Your task to perform on an android device: Open Google Chrome Image 0: 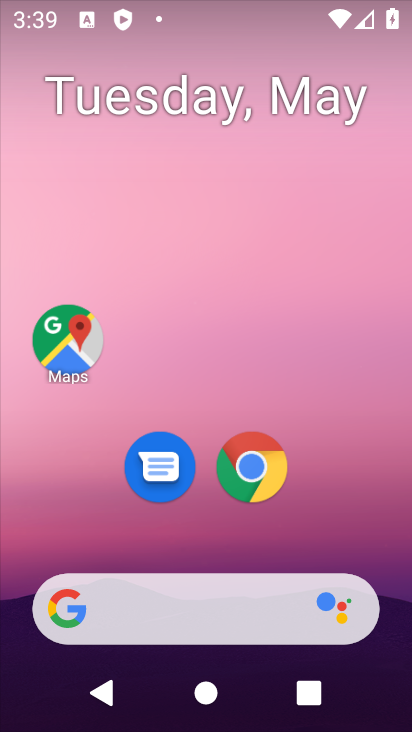
Step 0: click (261, 463)
Your task to perform on an android device: Open Google Chrome Image 1: 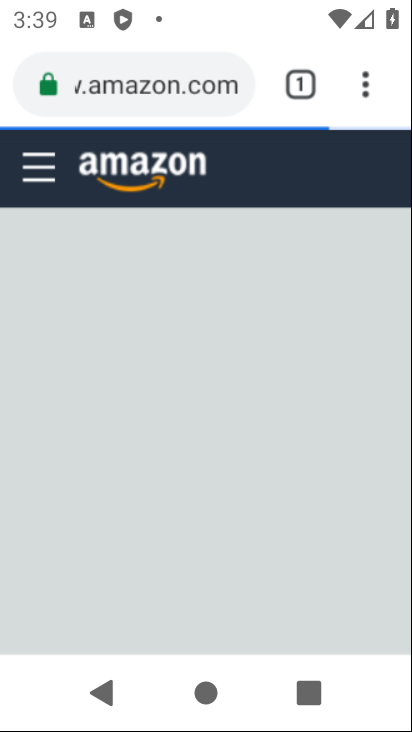
Step 1: task complete